Your task to perform on an android device: check battery use Image 0: 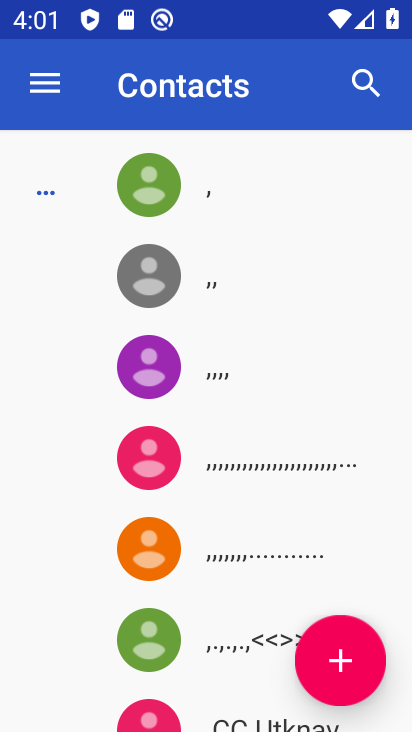
Step 0: press back button
Your task to perform on an android device: check battery use Image 1: 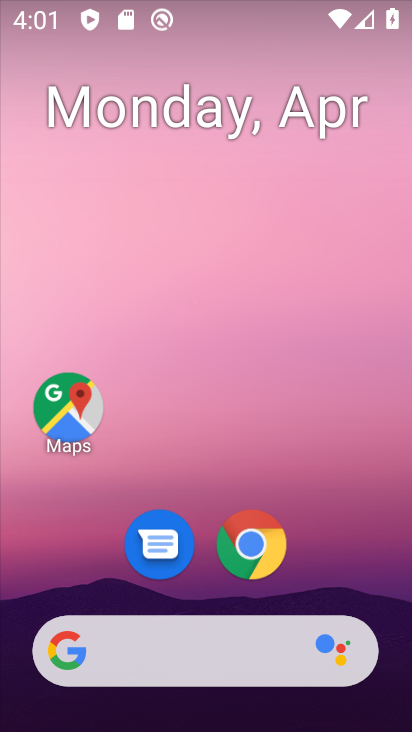
Step 1: drag from (115, 607) to (267, 20)
Your task to perform on an android device: check battery use Image 2: 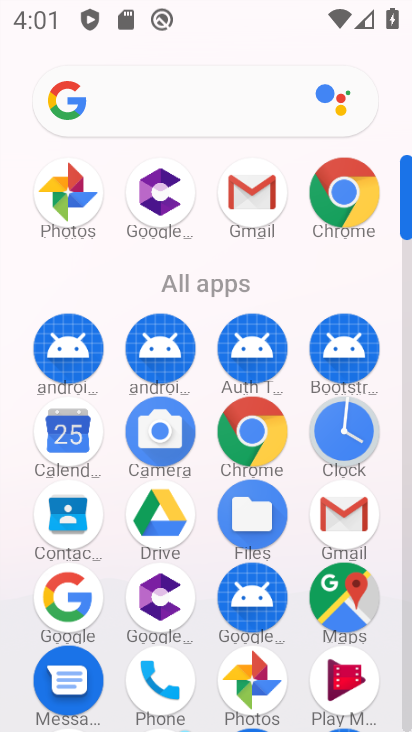
Step 2: drag from (190, 621) to (260, 300)
Your task to perform on an android device: check battery use Image 3: 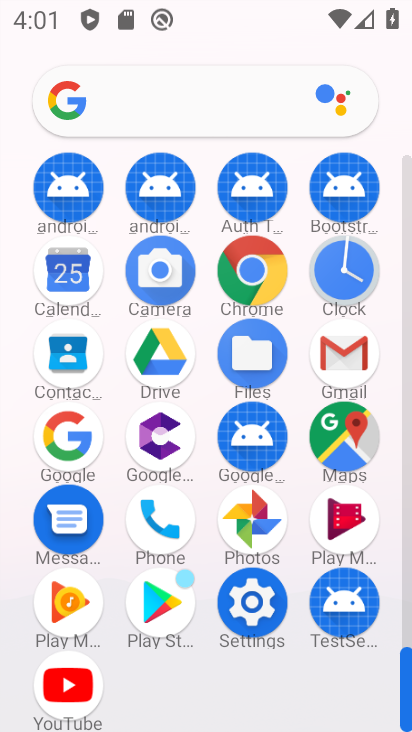
Step 3: click (263, 622)
Your task to perform on an android device: check battery use Image 4: 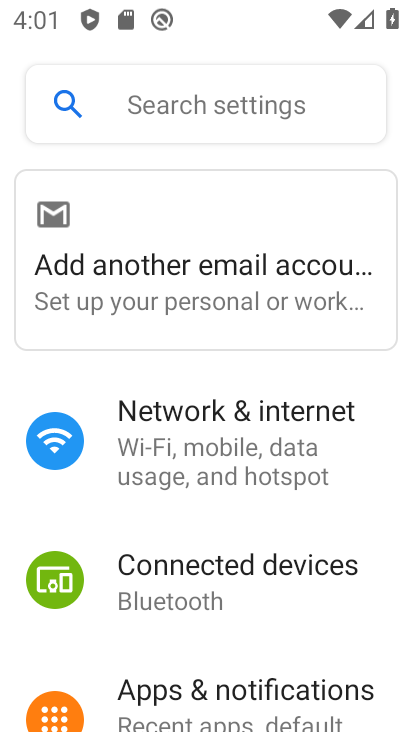
Step 4: drag from (223, 618) to (381, 284)
Your task to perform on an android device: check battery use Image 5: 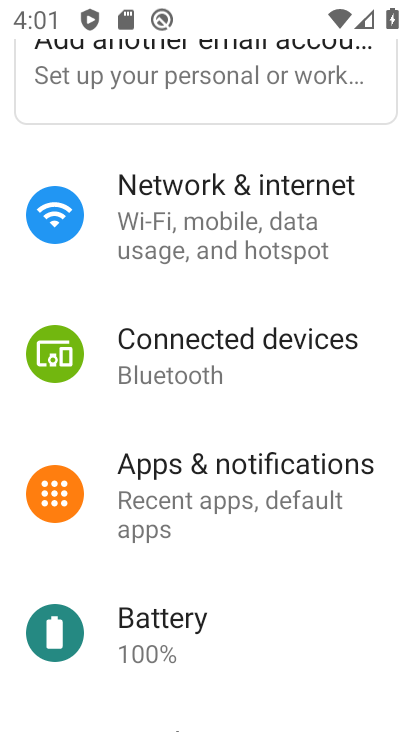
Step 5: click (221, 640)
Your task to perform on an android device: check battery use Image 6: 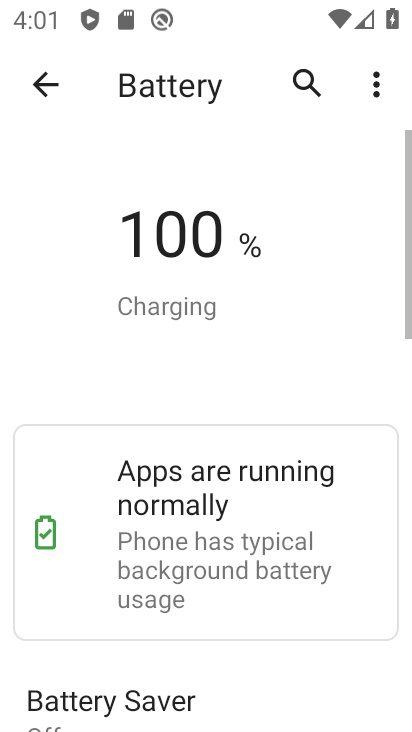
Step 6: drag from (148, 641) to (208, 429)
Your task to perform on an android device: check battery use Image 7: 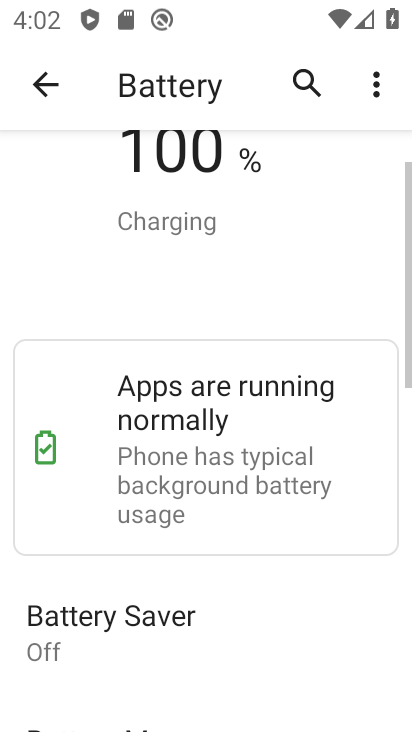
Step 7: click (371, 73)
Your task to perform on an android device: check battery use Image 8: 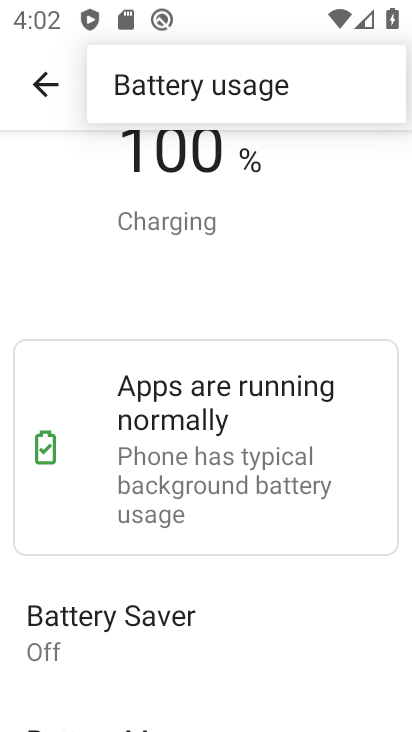
Step 8: click (354, 86)
Your task to perform on an android device: check battery use Image 9: 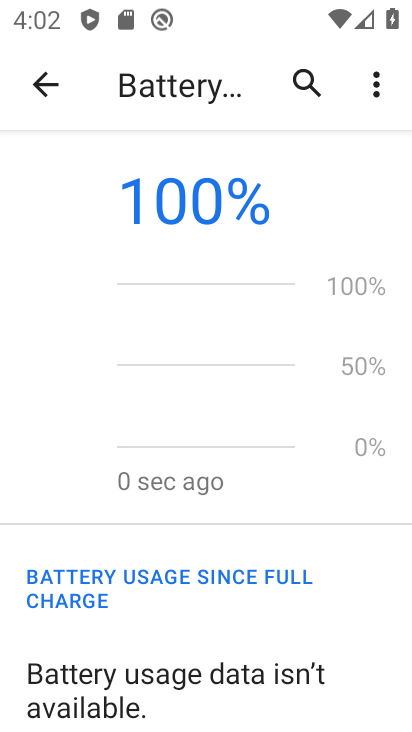
Step 9: task complete